Your task to perform on an android device: toggle pop-ups in chrome Image 0: 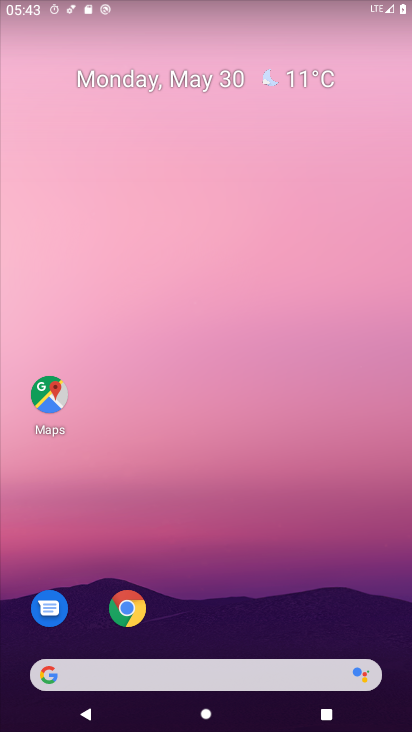
Step 0: drag from (298, 568) to (157, 5)
Your task to perform on an android device: toggle pop-ups in chrome Image 1: 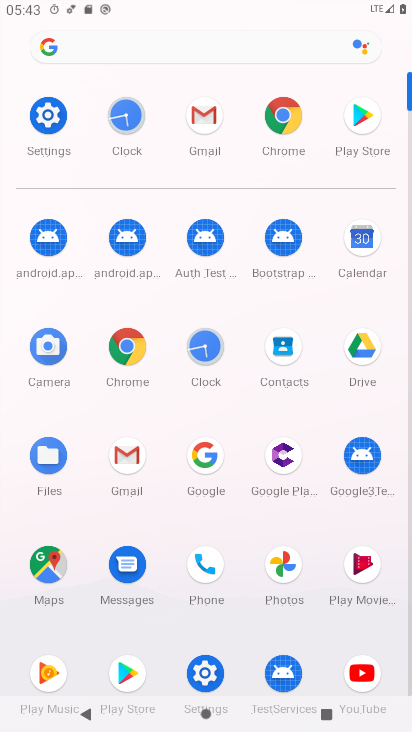
Step 1: click (133, 341)
Your task to perform on an android device: toggle pop-ups in chrome Image 2: 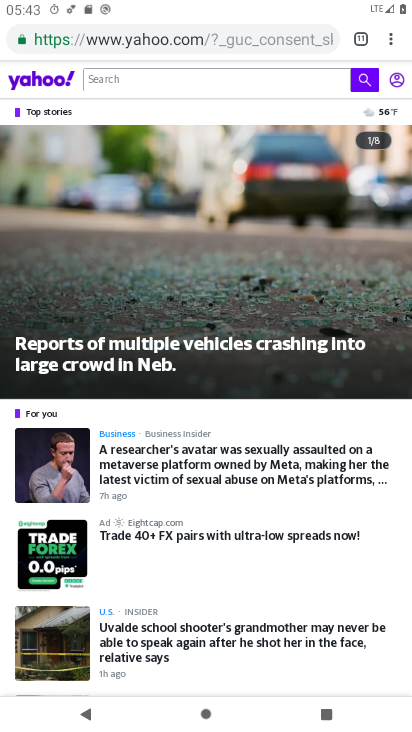
Step 2: click (392, 43)
Your task to perform on an android device: toggle pop-ups in chrome Image 3: 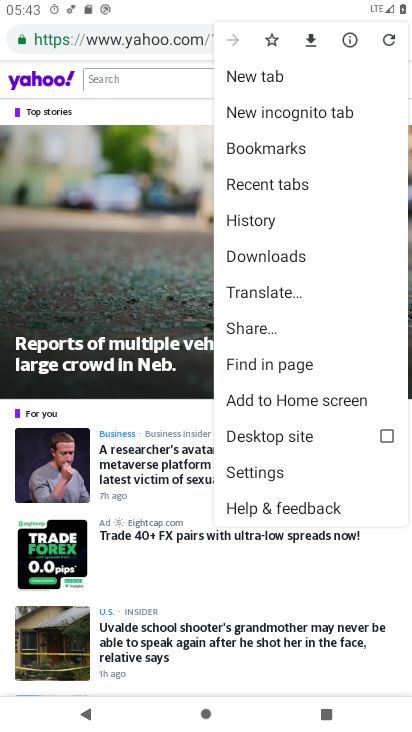
Step 3: click (273, 472)
Your task to perform on an android device: toggle pop-ups in chrome Image 4: 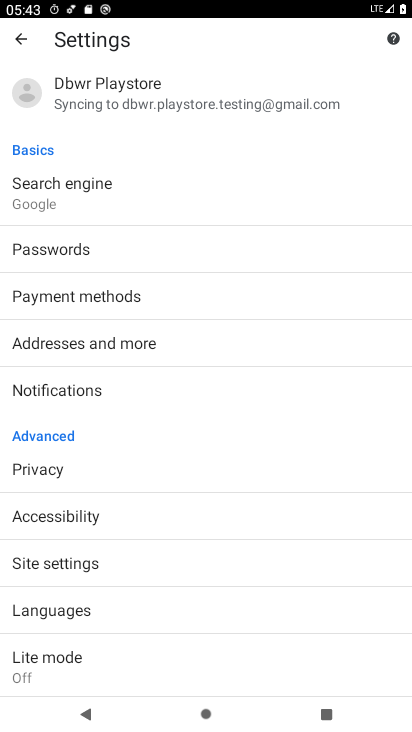
Step 4: click (138, 572)
Your task to perform on an android device: toggle pop-ups in chrome Image 5: 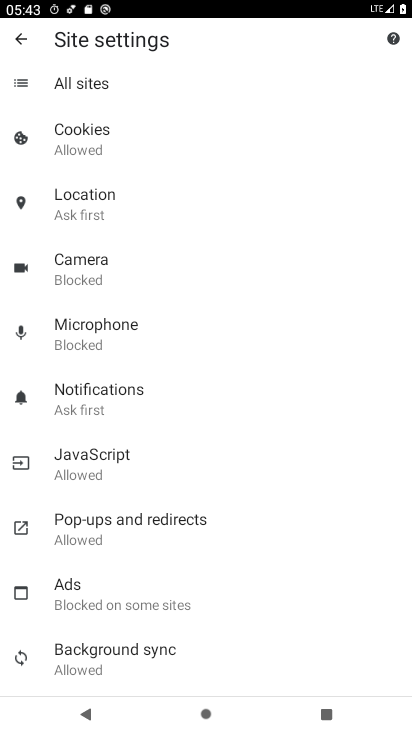
Step 5: click (192, 536)
Your task to perform on an android device: toggle pop-ups in chrome Image 6: 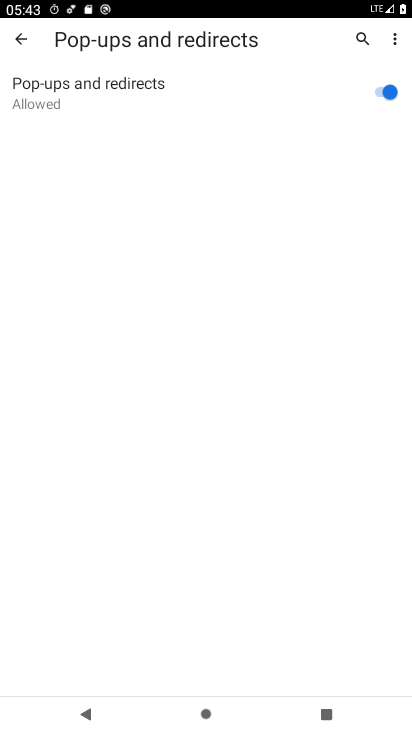
Step 6: click (380, 87)
Your task to perform on an android device: toggle pop-ups in chrome Image 7: 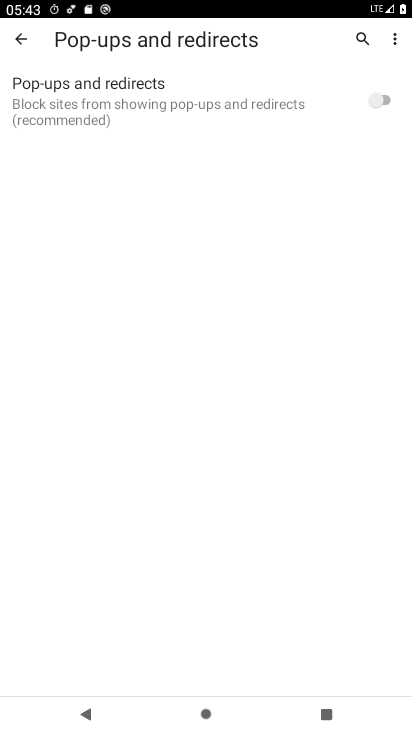
Step 7: task complete